Your task to perform on an android device: open app "Adobe Express: Graphic Design" (install if not already installed), go to login, and select forgot password Image 0: 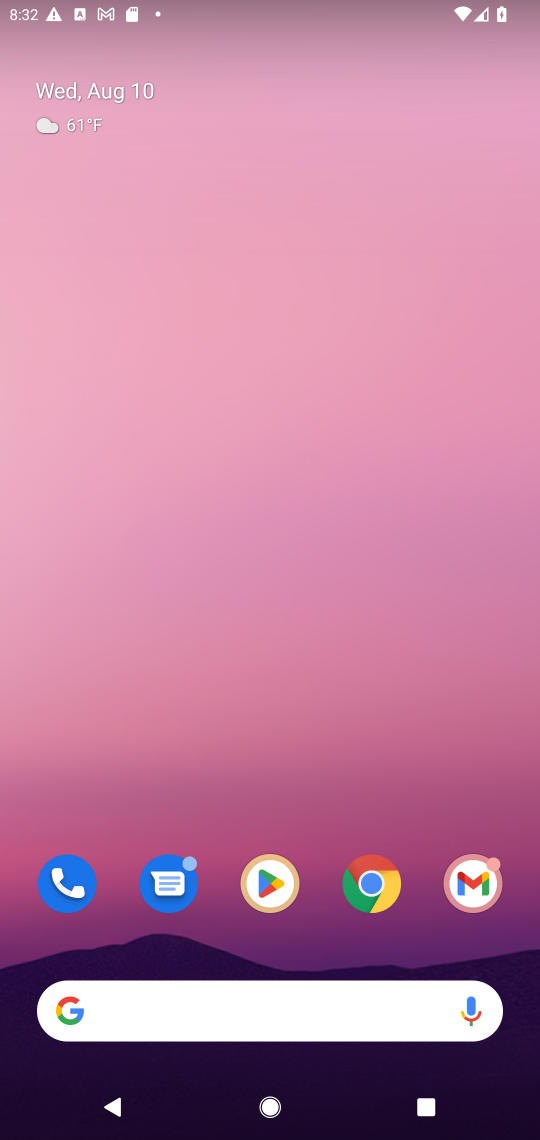
Step 0: click (259, 856)
Your task to perform on an android device: open app "Adobe Express: Graphic Design" (install if not already installed), go to login, and select forgot password Image 1: 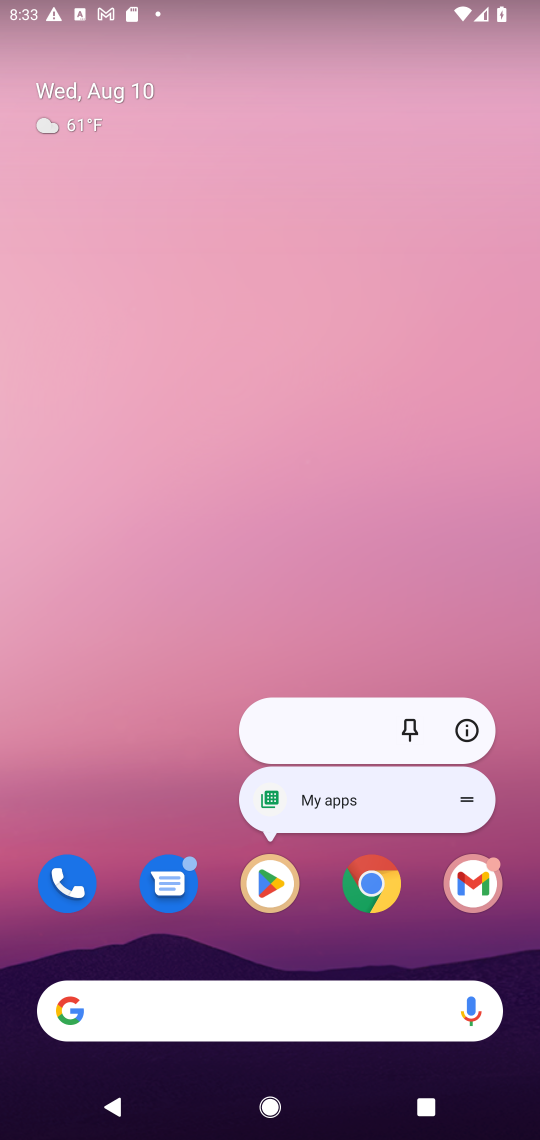
Step 1: click (246, 869)
Your task to perform on an android device: open app "Adobe Express: Graphic Design" (install if not already installed), go to login, and select forgot password Image 2: 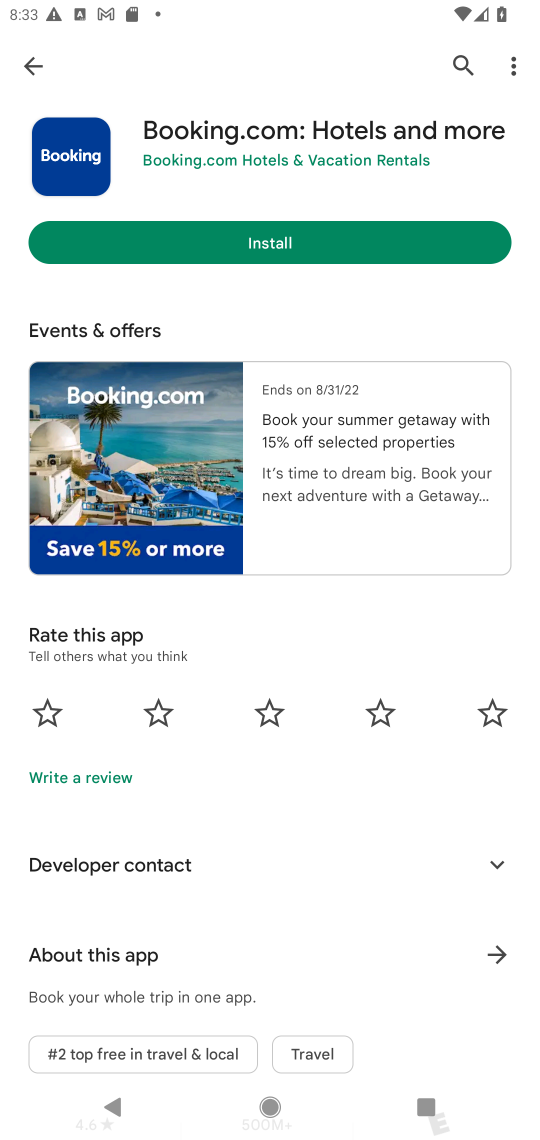
Step 2: click (473, 55)
Your task to perform on an android device: open app "Adobe Express: Graphic Design" (install if not already installed), go to login, and select forgot password Image 3: 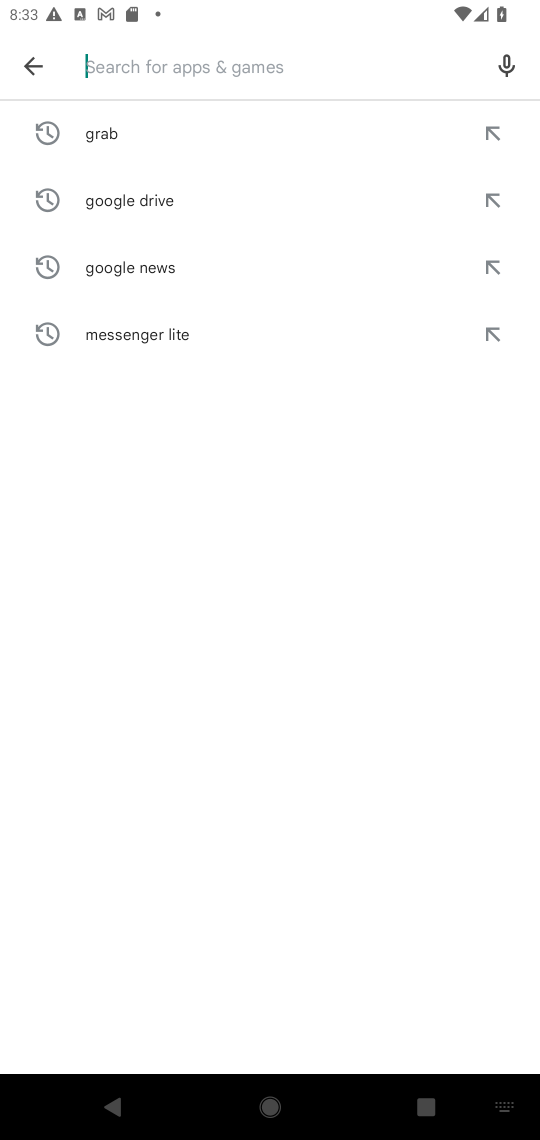
Step 3: type "Adobe Express: Graphic Design"
Your task to perform on an android device: open app "Adobe Express: Graphic Design" (install if not already installed), go to login, and select forgot password Image 4: 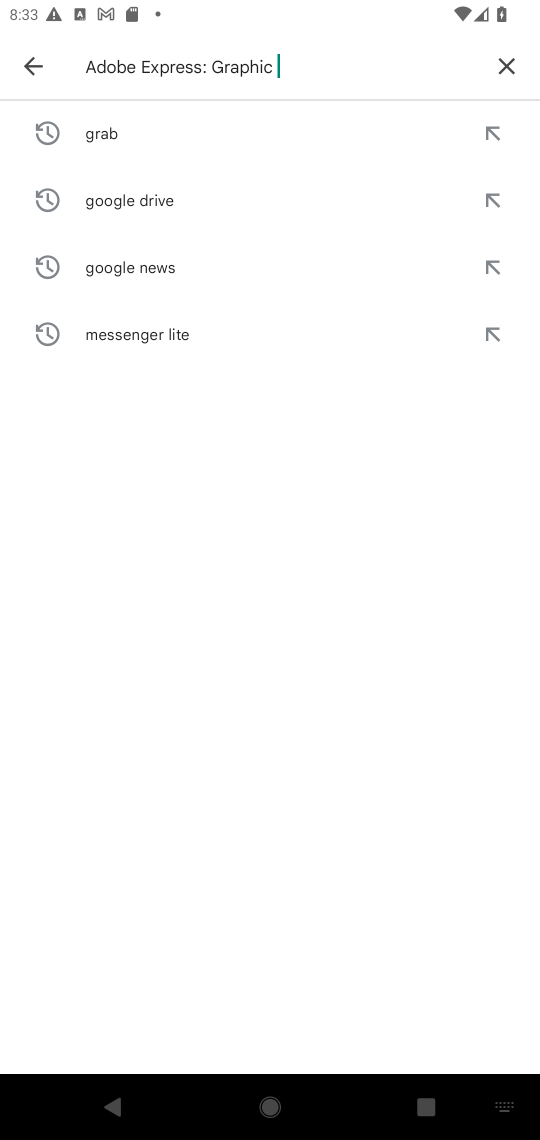
Step 4: type ""
Your task to perform on an android device: open app "Adobe Express: Graphic Design" (install if not already installed), go to login, and select forgot password Image 5: 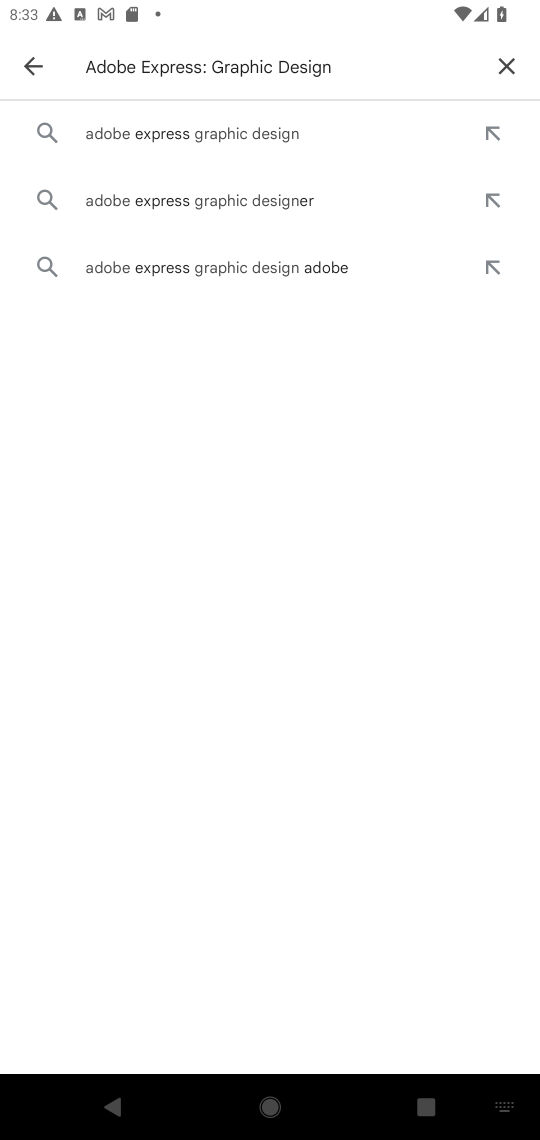
Step 5: click (226, 126)
Your task to perform on an android device: open app "Adobe Express: Graphic Design" (install if not already installed), go to login, and select forgot password Image 6: 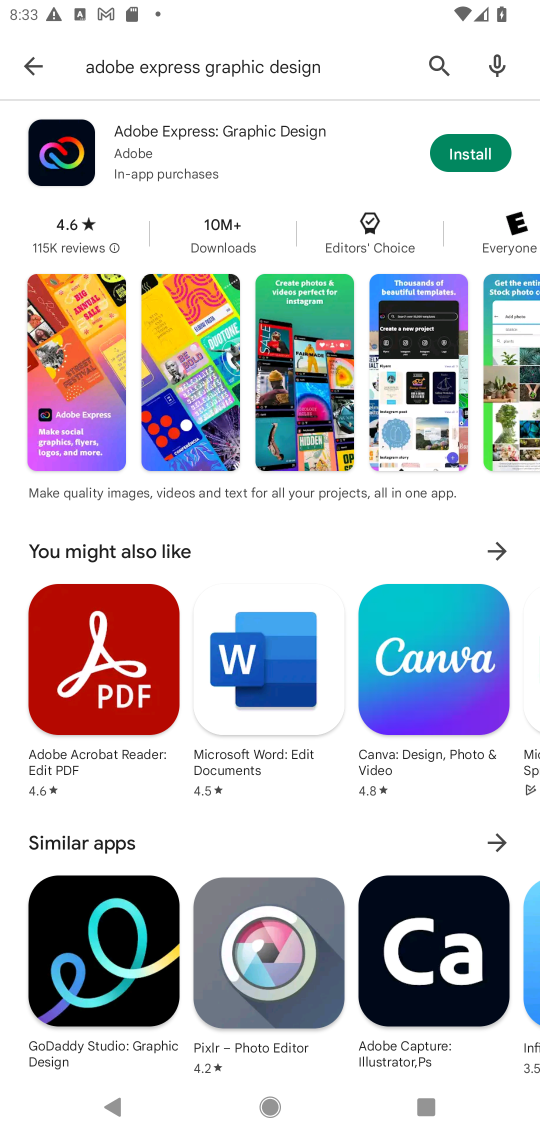
Step 6: click (460, 155)
Your task to perform on an android device: open app "Adobe Express: Graphic Design" (install if not already installed), go to login, and select forgot password Image 7: 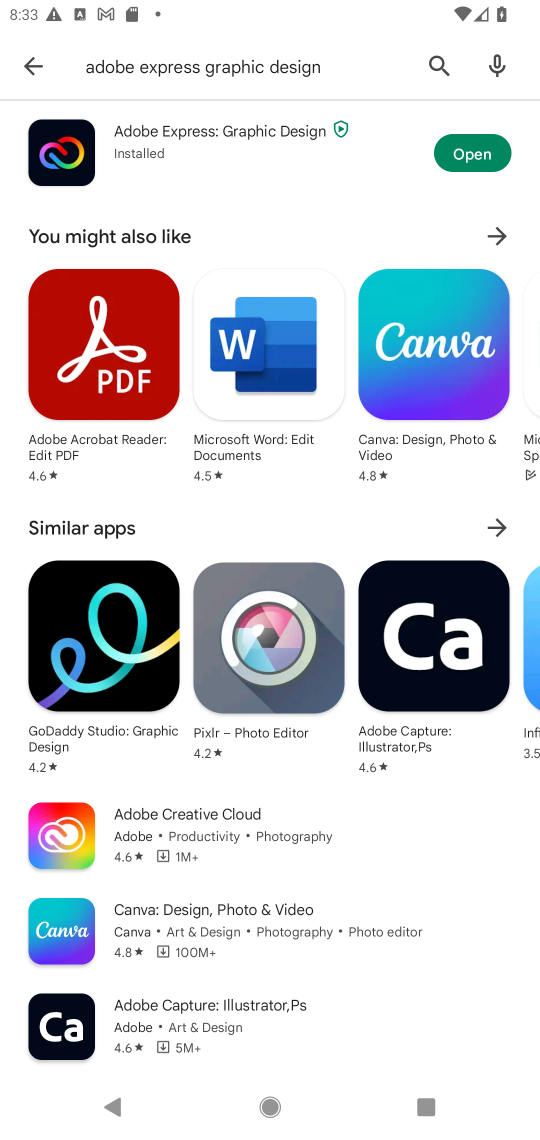
Step 7: click (460, 155)
Your task to perform on an android device: open app "Adobe Express: Graphic Design" (install if not already installed), go to login, and select forgot password Image 8: 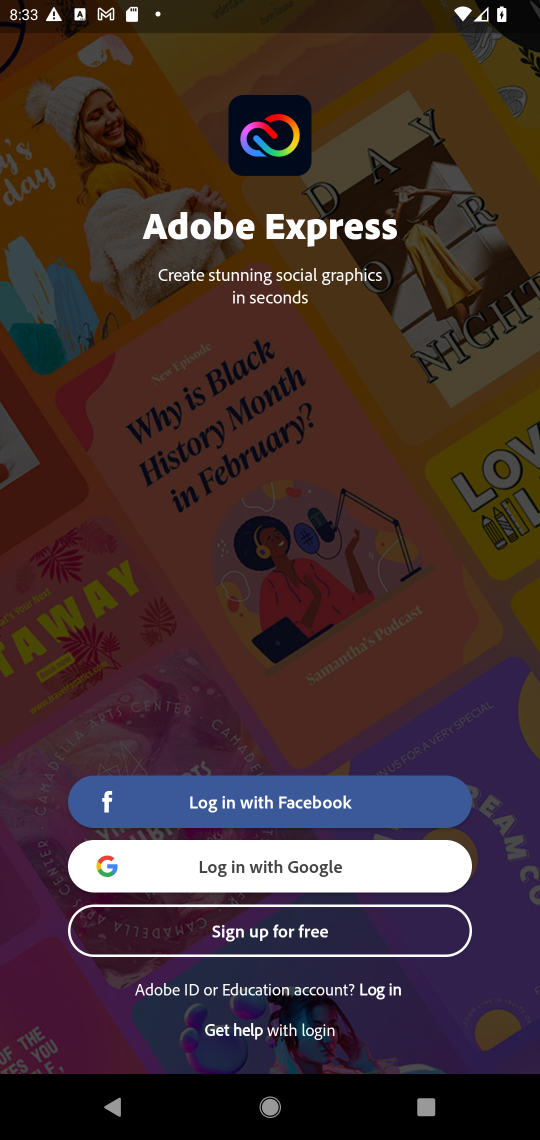
Step 8: task complete